Your task to perform on an android device: Go to Android settings Image 0: 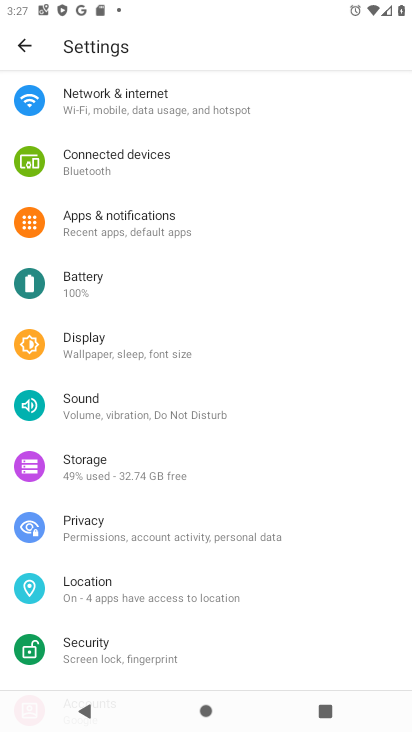
Step 0: drag from (247, 636) to (263, 258)
Your task to perform on an android device: Go to Android settings Image 1: 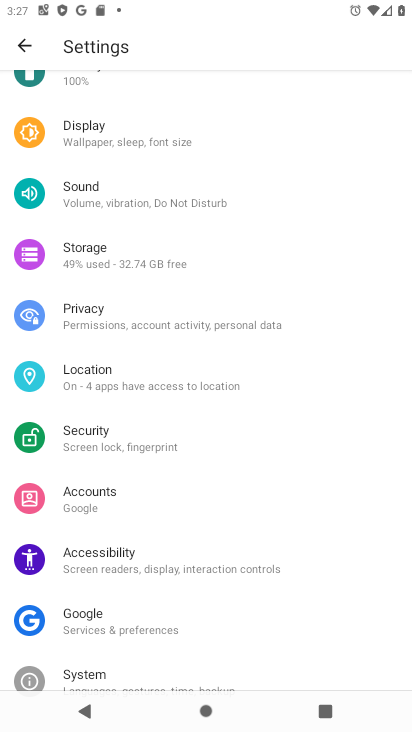
Step 1: drag from (232, 547) to (265, 217)
Your task to perform on an android device: Go to Android settings Image 2: 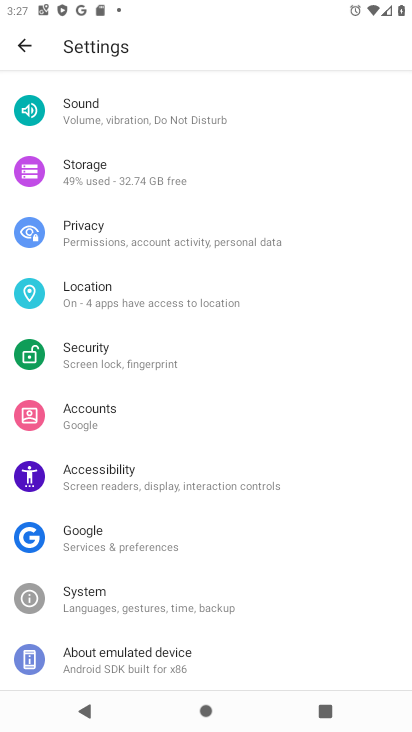
Step 2: click (229, 661)
Your task to perform on an android device: Go to Android settings Image 3: 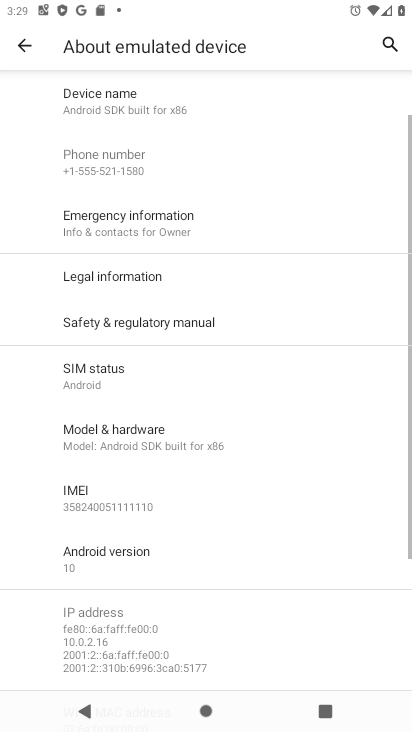
Step 3: task complete